Your task to perform on an android device: search for starred emails in the gmail app Image 0: 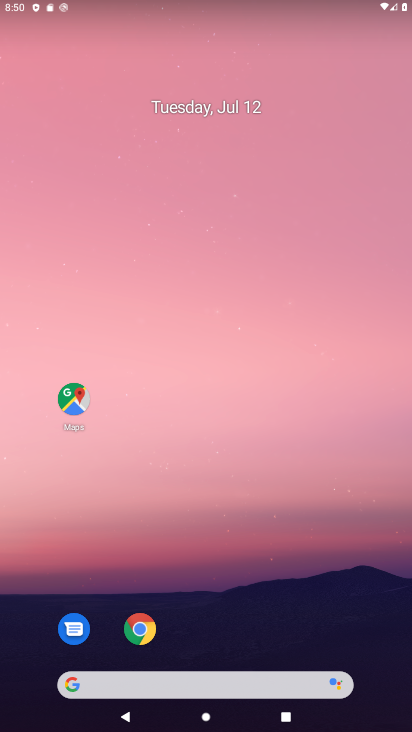
Step 0: drag from (324, 662) to (220, 203)
Your task to perform on an android device: search for starred emails in the gmail app Image 1: 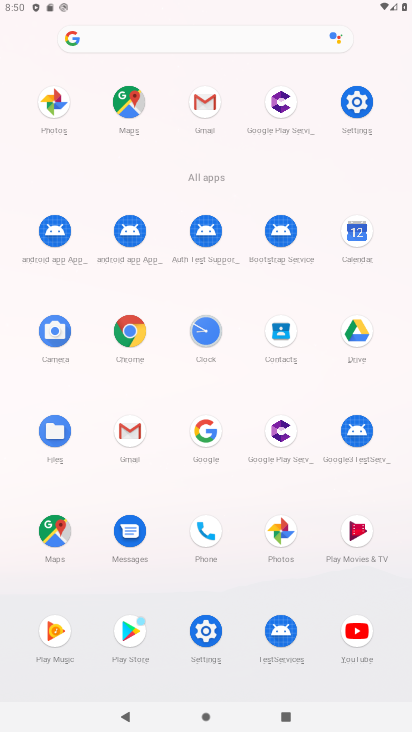
Step 1: click (139, 426)
Your task to perform on an android device: search for starred emails in the gmail app Image 2: 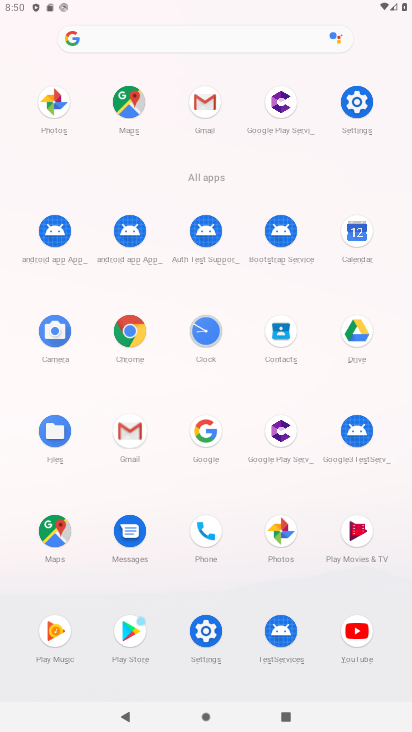
Step 2: click (136, 426)
Your task to perform on an android device: search for starred emails in the gmail app Image 3: 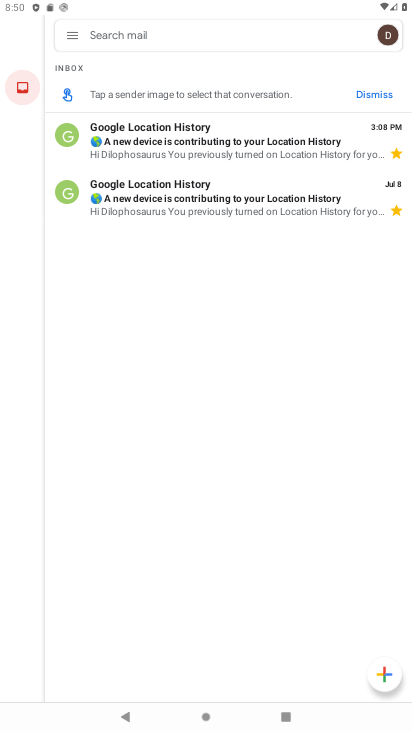
Step 3: click (33, 81)
Your task to perform on an android device: search for starred emails in the gmail app Image 4: 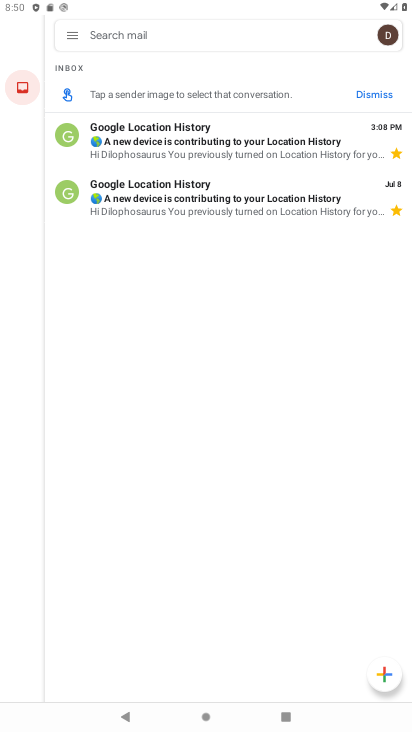
Step 4: task complete